Your task to perform on an android device: open sync settings in chrome Image 0: 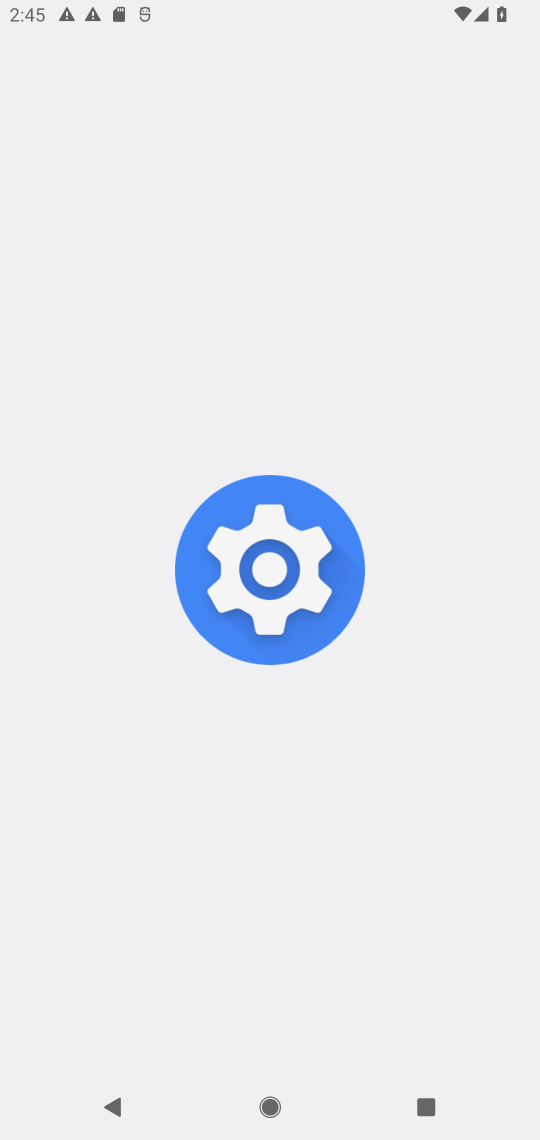
Step 0: press home button
Your task to perform on an android device: open sync settings in chrome Image 1: 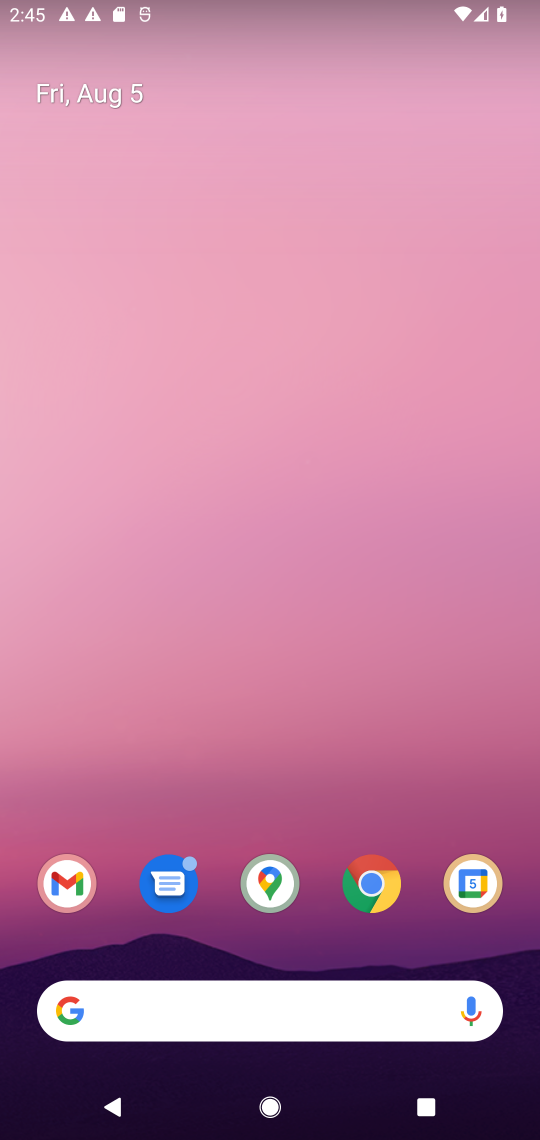
Step 1: click (371, 874)
Your task to perform on an android device: open sync settings in chrome Image 2: 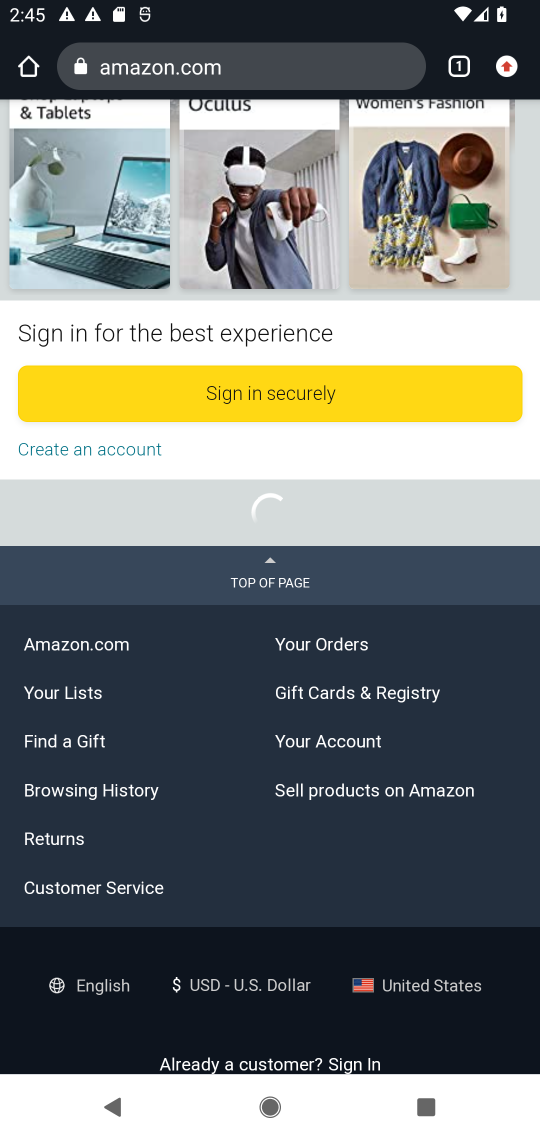
Step 2: click (504, 65)
Your task to perform on an android device: open sync settings in chrome Image 3: 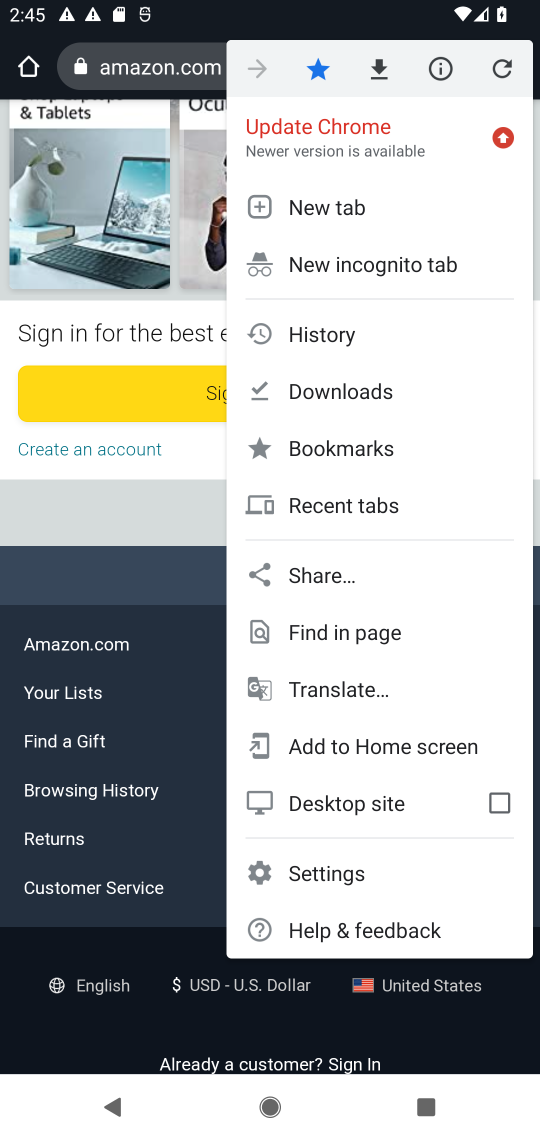
Step 3: click (365, 870)
Your task to perform on an android device: open sync settings in chrome Image 4: 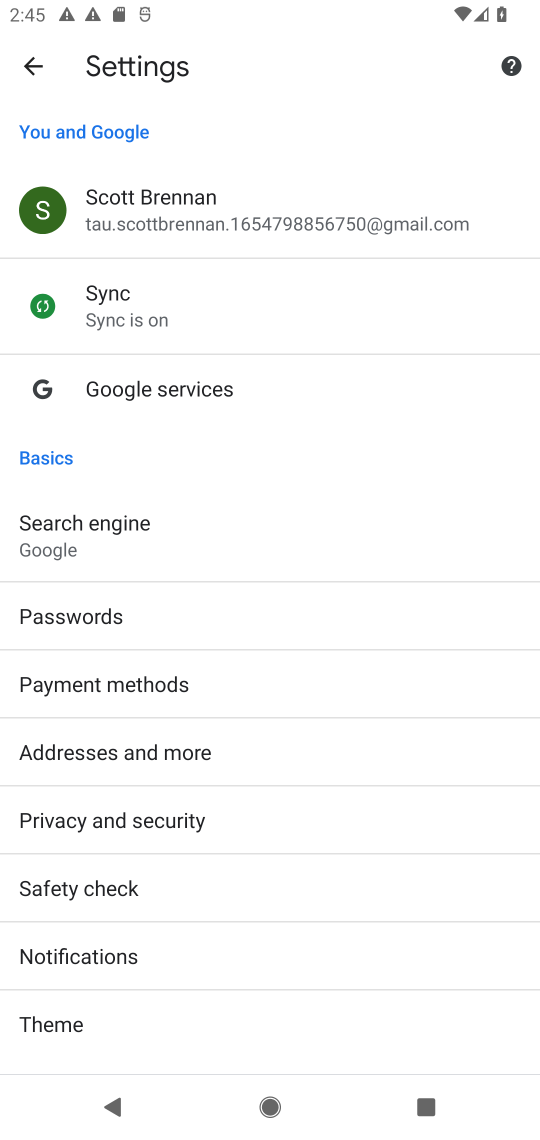
Step 4: click (179, 295)
Your task to perform on an android device: open sync settings in chrome Image 5: 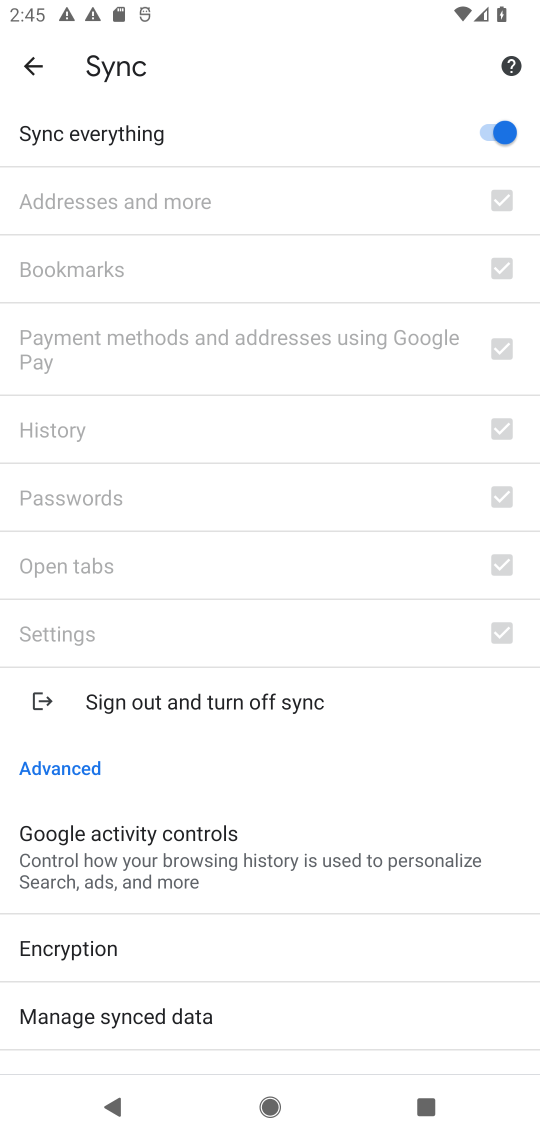
Step 5: task complete